Your task to perform on an android device: turn on the 12-hour format for clock Image 0: 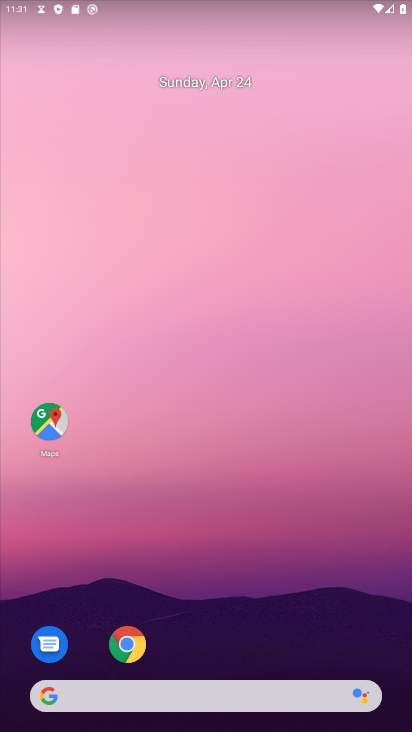
Step 0: drag from (375, 632) to (373, 87)
Your task to perform on an android device: turn on the 12-hour format for clock Image 1: 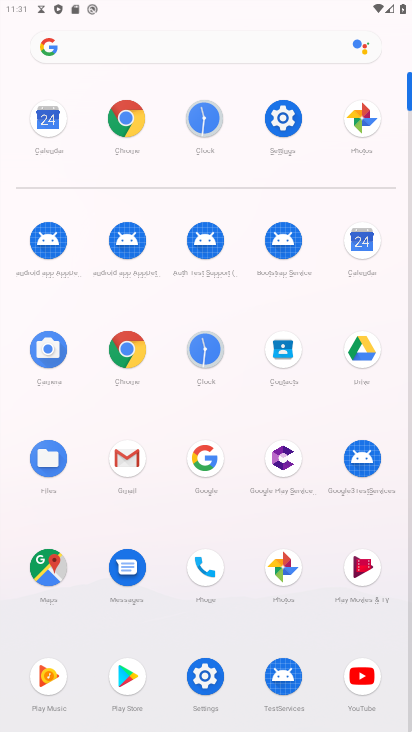
Step 1: click (204, 118)
Your task to perform on an android device: turn on the 12-hour format for clock Image 2: 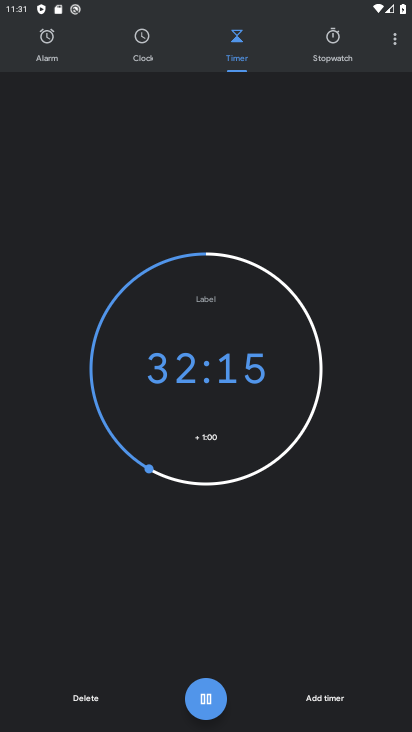
Step 2: click (394, 43)
Your task to perform on an android device: turn on the 12-hour format for clock Image 3: 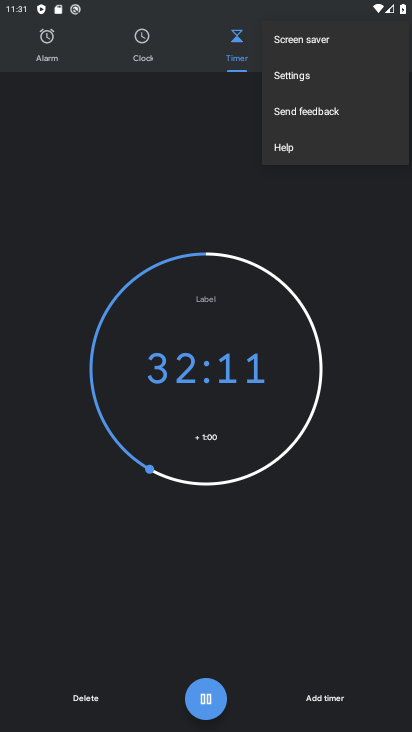
Step 3: click (280, 83)
Your task to perform on an android device: turn on the 12-hour format for clock Image 4: 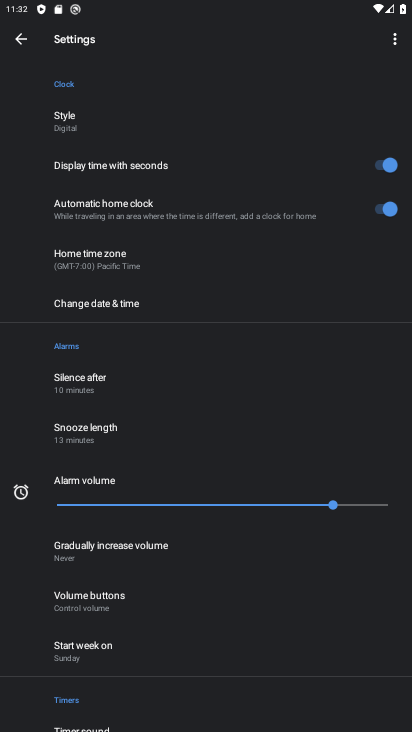
Step 4: click (108, 301)
Your task to perform on an android device: turn on the 12-hour format for clock Image 5: 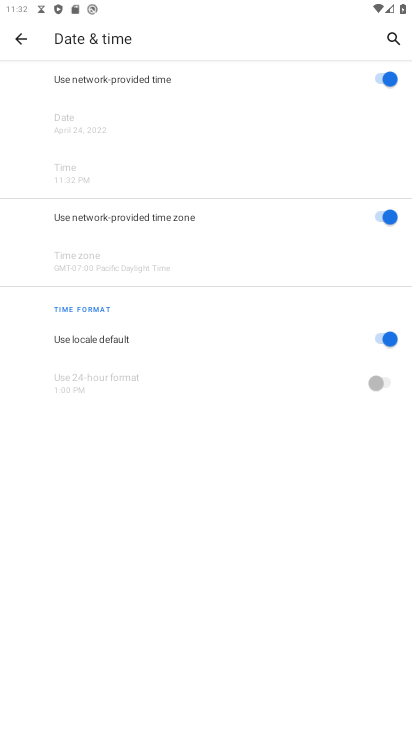
Step 5: task complete